Your task to perform on an android device: star an email in the gmail app Image 0: 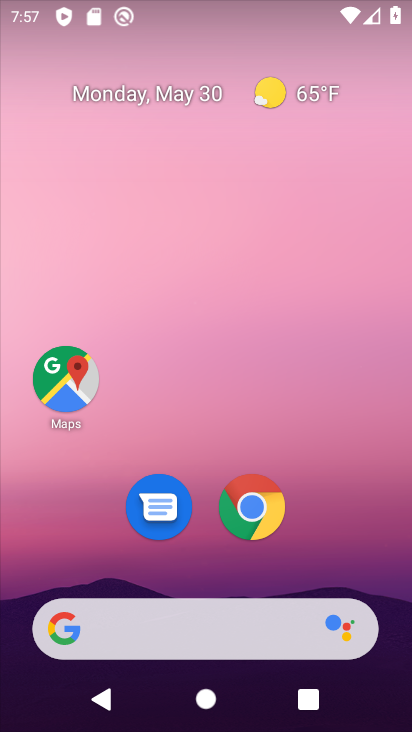
Step 0: drag from (295, 630) to (319, 180)
Your task to perform on an android device: star an email in the gmail app Image 1: 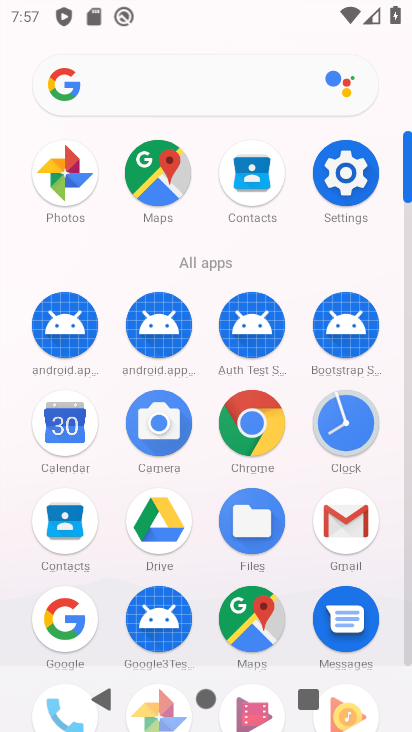
Step 1: click (340, 515)
Your task to perform on an android device: star an email in the gmail app Image 2: 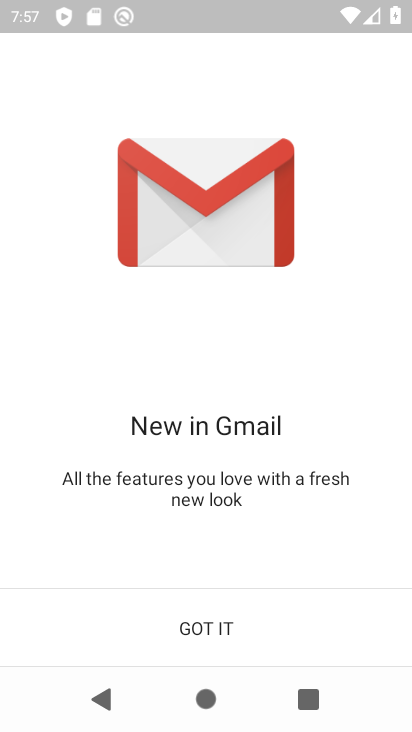
Step 2: click (274, 615)
Your task to perform on an android device: star an email in the gmail app Image 3: 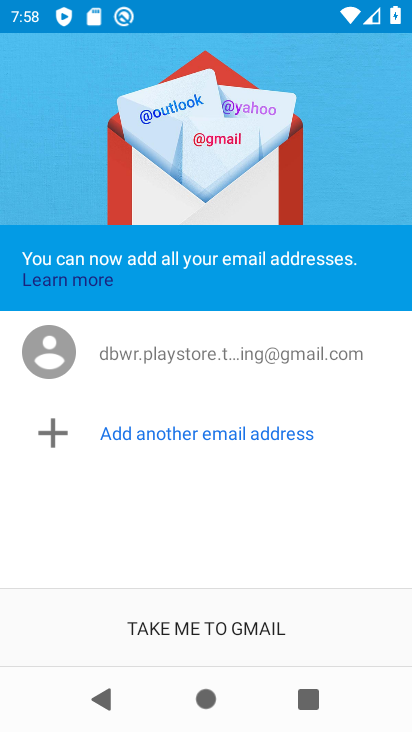
Step 3: click (279, 618)
Your task to perform on an android device: star an email in the gmail app Image 4: 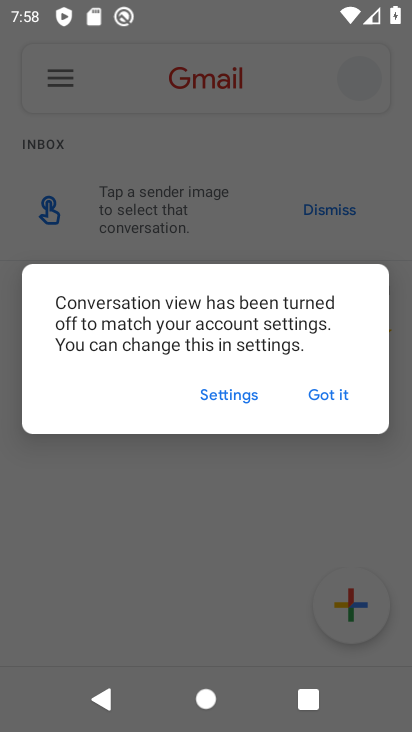
Step 4: click (338, 395)
Your task to perform on an android device: star an email in the gmail app Image 5: 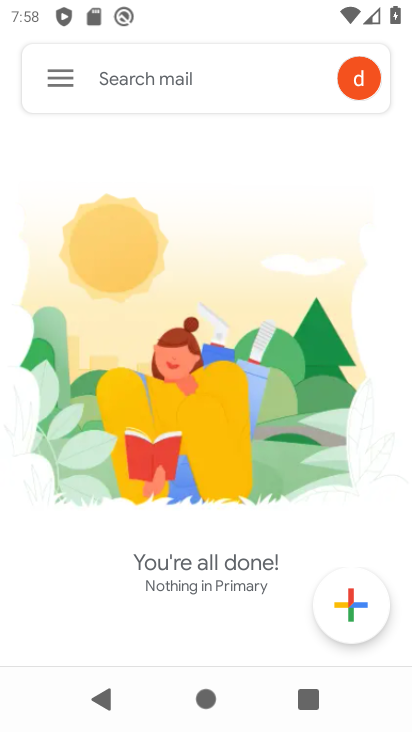
Step 5: task complete